Your task to perform on an android device: When is my next appointment? Image 0: 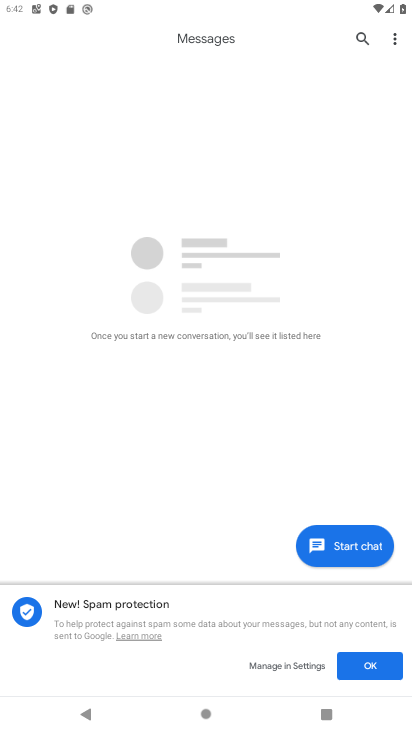
Step 0: press home button
Your task to perform on an android device: When is my next appointment? Image 1: 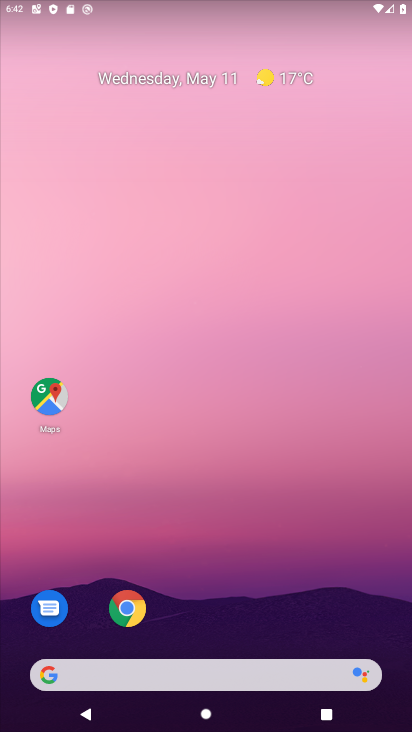
Step 1: drag from (228, 577) to (221, 109)
Your task to perform on an android device: When is my next appointment? Image 2: 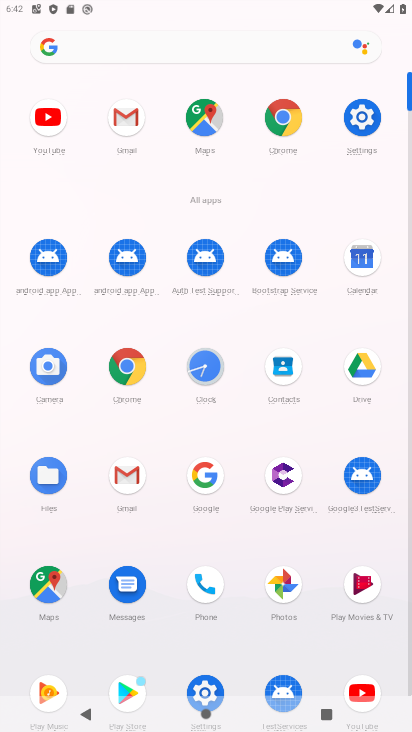
Step 2: click (351, 268)
Your task to perform on an android device: When is my next appointment? Image 3: 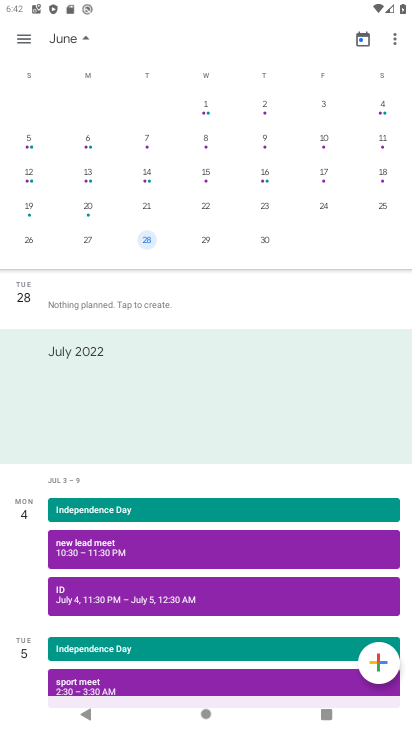
Step 3: task complete